Your task to perform on an android device: Open calendar and show me the first week of next month Image 0: 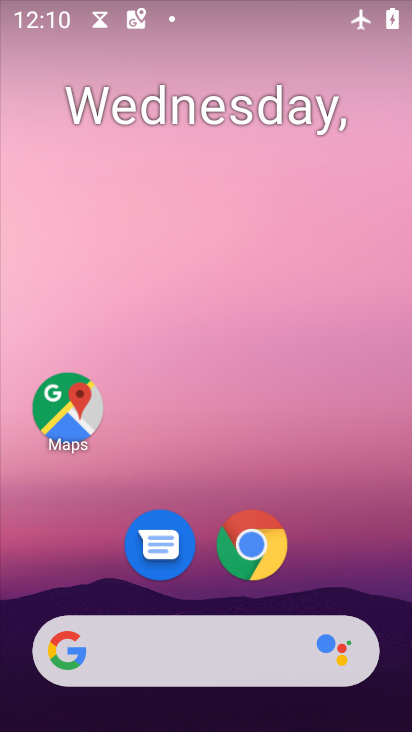
Step 0: drag from (371, 428) to (332, 4)
Your task to perform on an android device: Open calendar and show me the first week of next month Image 1: 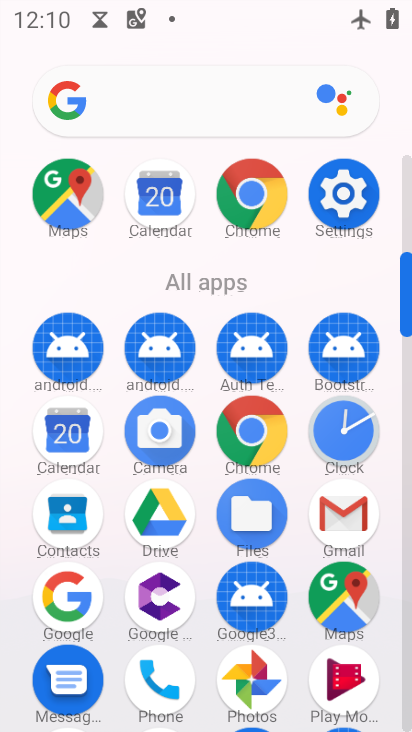
Step 1: click (68, 441)
Your task to perform on an android device: Open calendar and show me the first week of next month Image 2: 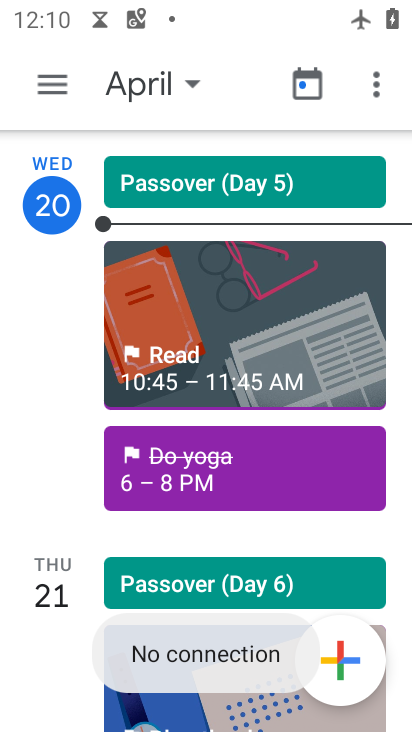
Step 2: click (69, 441)
Your task to perform on an android device: Open calendar and show me the first week of next month Image 3: 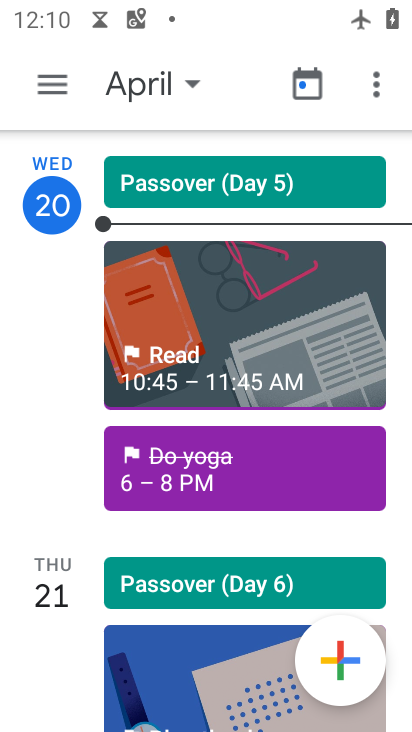
Step 3: click (154, 87)
Your task to perform on an android device: Open calendar and show me the first week of next month Image 4: 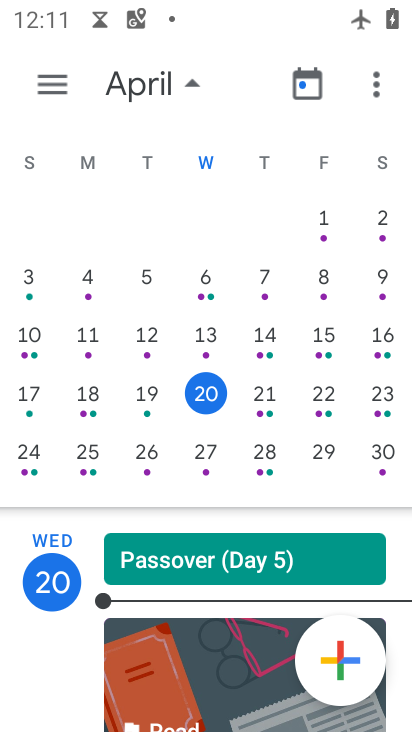
Step 4: click (52, 463)
Your task to perform on an android device: Open calendar and show me the first week of next month Image 5: 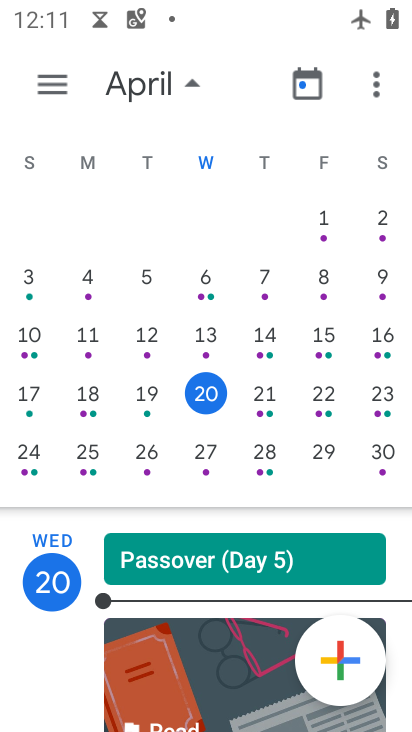
Step 5: drag from (310, 422) to (38, 412)
Your task to perform on an android device: Open calendar and show me the first week of next month Image 6: 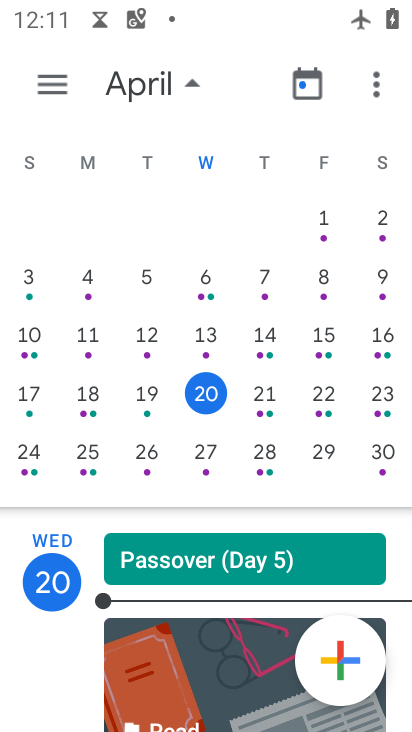
Step 6: click (192, 281)
Your task to perform on an android device: Open calendar and show me the first week of next month Image 7: 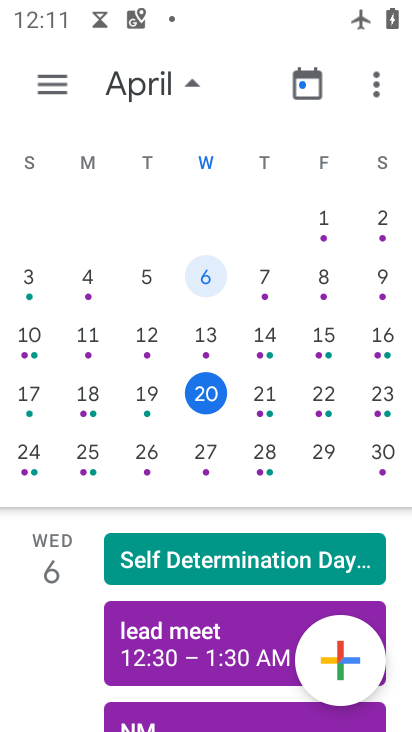
Step 7: task complete